Your task to perform on an android device: What's the news? Image 0: 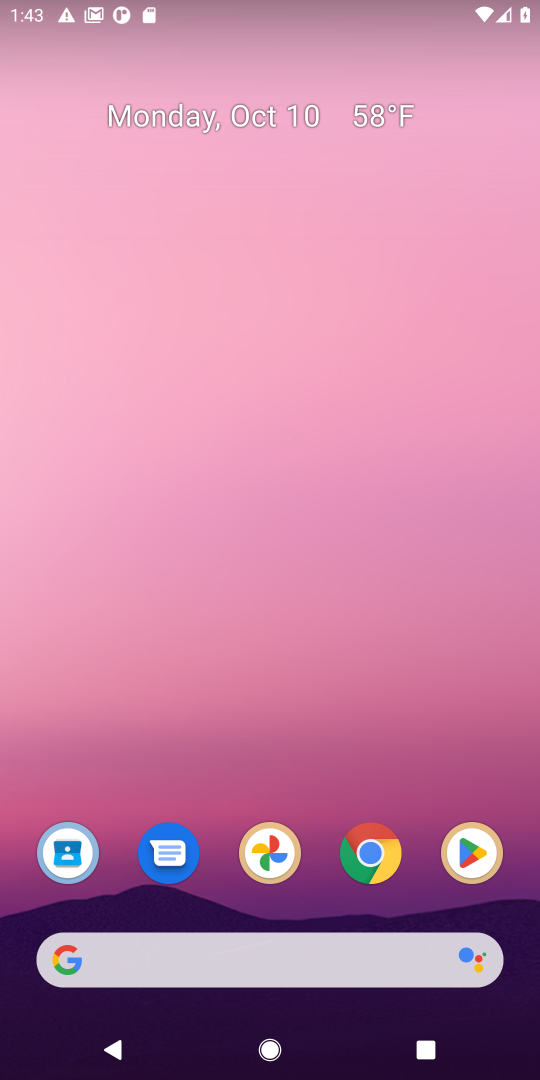
Step 0: click (381, 855)
Your task to perform on an android device: What's the news? Image 1: 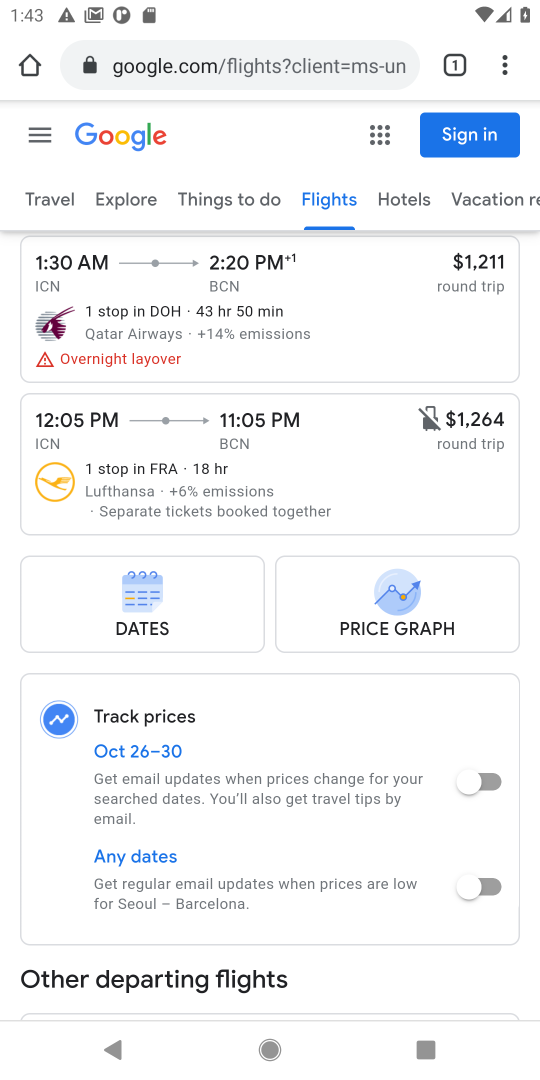
Step 1: click (278, 69)
Your task to perform on an android device: What's the news? Image 2: 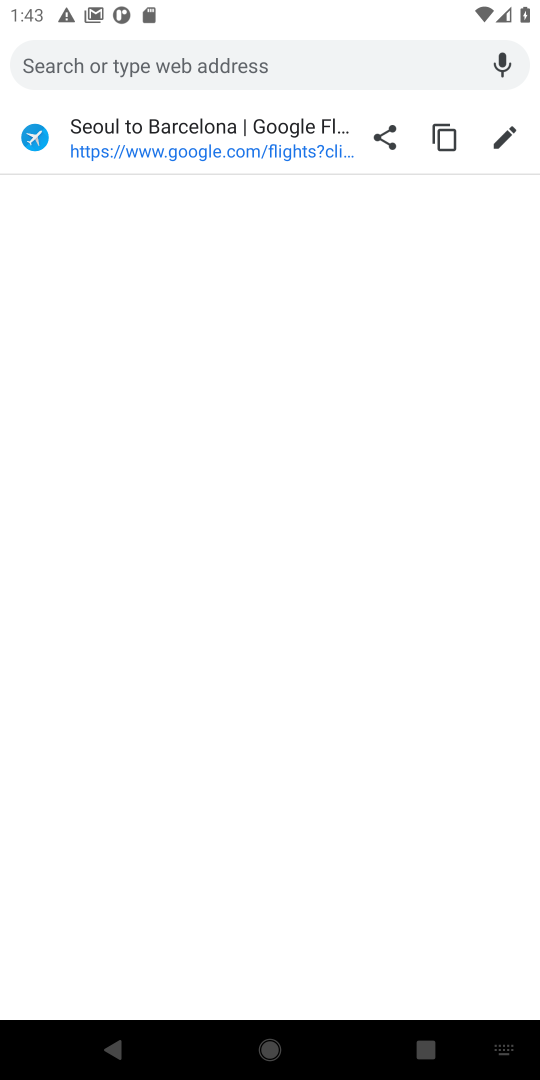
Step 2: type "What's the news"
Your task to perform on an android device: What's the news? Image 3: 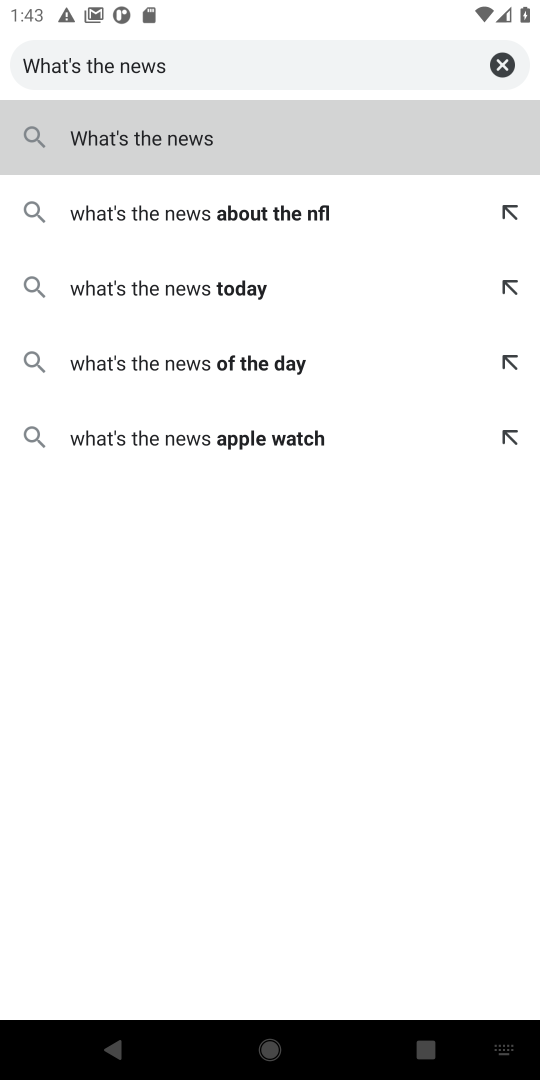
Step 3: click (181, 134)
Your task to perform on an android device: What's the news? Image 4: 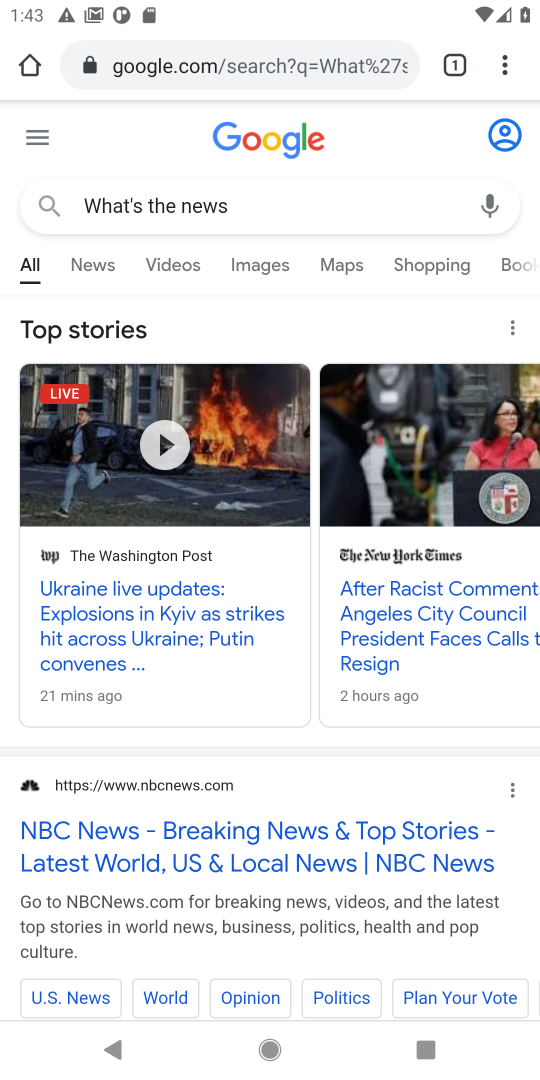
Step 4: click (90, 263)
Your task to perform on an android device: What's the news? Image 5: 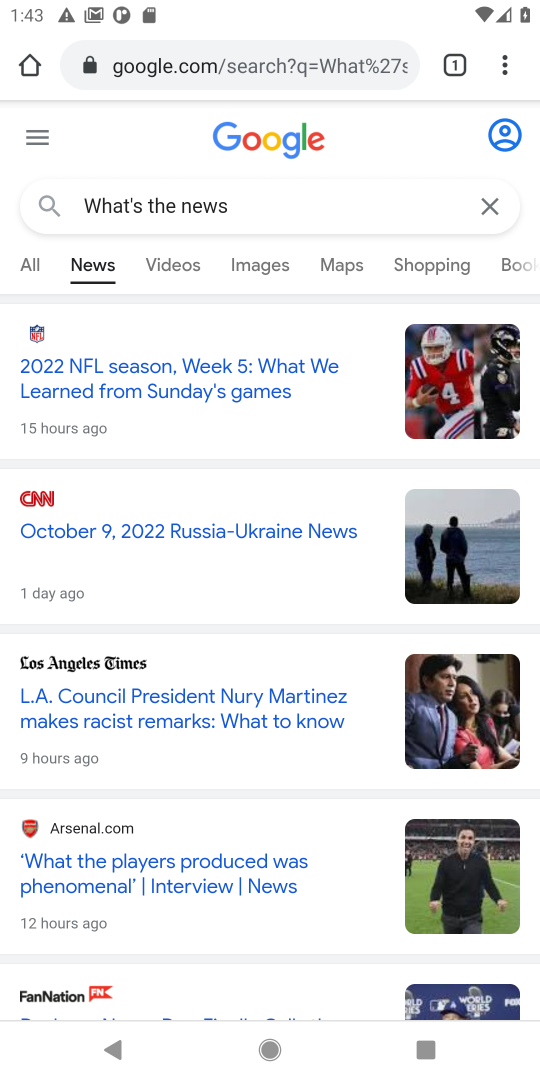
Step 5: task complete